Your task to perform on an android device: Clear the shopping cart on amazon.com. Add "bose soundlink mini" to the cart on amazon.com, then select checkout. Image 0: 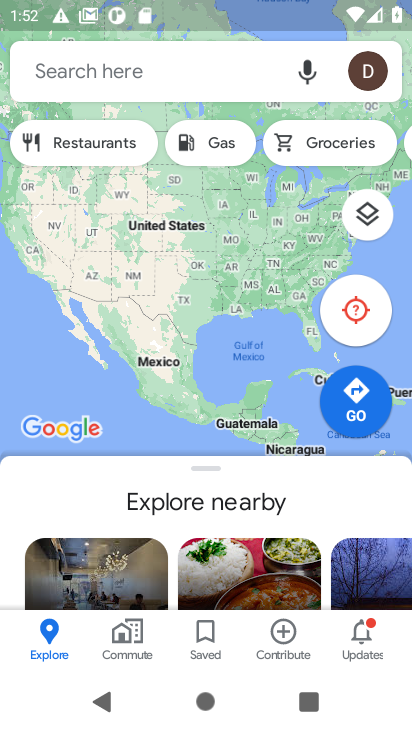
Step 0: press home button
Your task to perform on an android device: Clear the shopping cart on amazon.com. Add "bose soundlink mini" to the cart on amazon.com, then select checkout. Image 1: 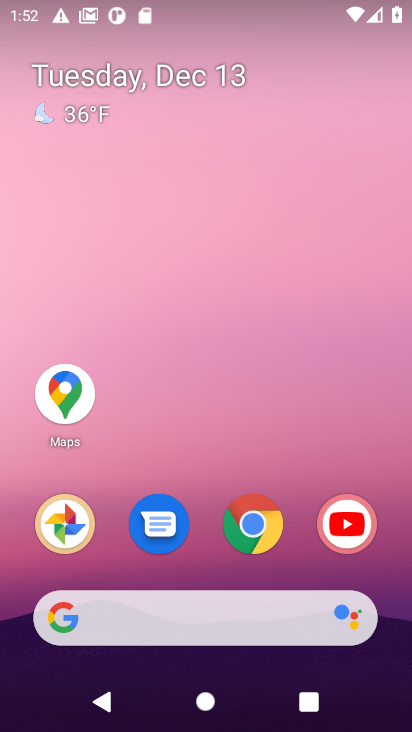
Step 1: click (251, 530)
Your task to perform on an android device: Clear the shopping cart on amazon.com. Add "bose soundlink mini" to the cart on amazon.com, then select checkout. Image 2: 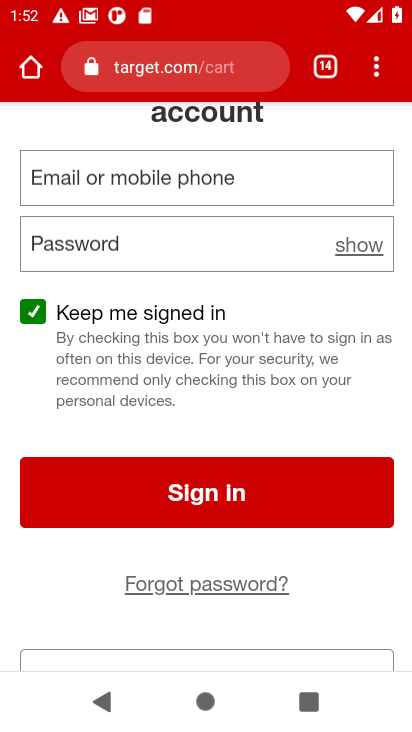
Step 2: click (194, 71)
Your task to perform on an android device: Clear the shopping cart on amazon.com. Add "bose soundlink mini" to the cart on amazon.com, then select checkout. Image 3: 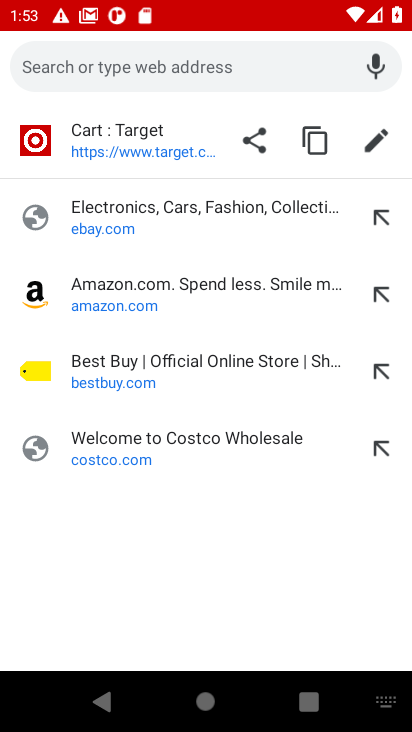
Step 3: click (91, 286)
Your task to perform on an android device: Clear the shopping cart on amazon.com. Add "bose soundlink mini" to the cart on amazon.com, then select checkout. Image 4: 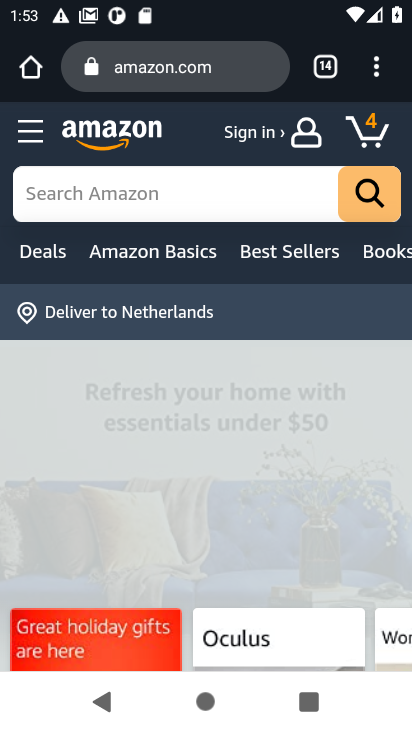
Step 4: click (373, 135)
Your task to perform on an android device: Clear the shopping cart on amazon.com. Add "bose soundlink mini" to the cart on amazon.com, then select checkout. Image 5: 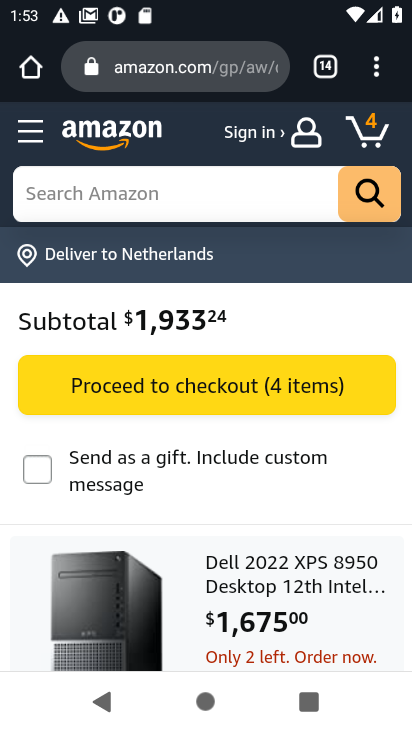
Step 5: drag from (187, 477) to (220, 238)
Your task to perform on an android device: Clear the shopping cart on amazon.com. Add "bose soundlink mini" to the cart on amazon.com, then select checkout. Image 6: 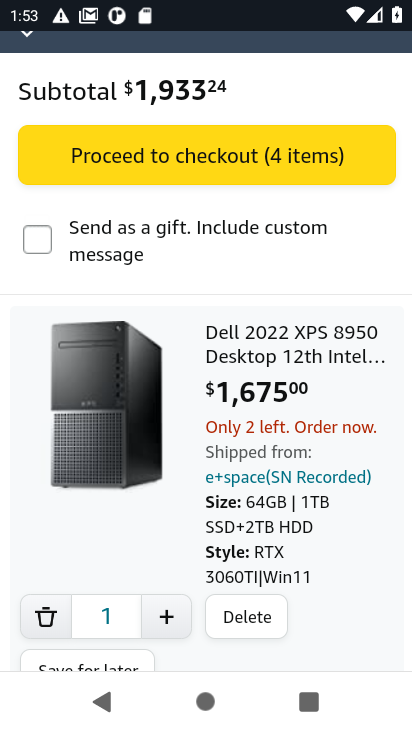
Step 6: click (236, 618)
Your task to perform on an android device: Clear the shopping cart on amazon.com. Add "bose soundlink mini" to the cart on amazon.com, then select checkout. Image 7: 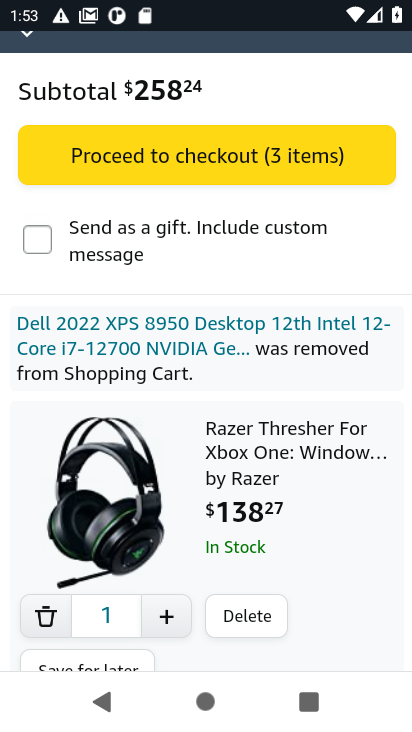
Step 7: click (236, 618)
Your task to perform on an android device: Clear the shopping cart on amazon.com. Add "bose soundlink mini" to the cart on amazon.com, then select checkout. Image 8: 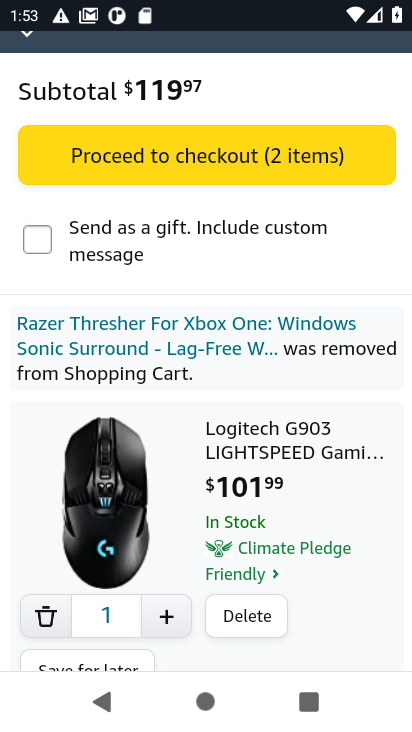
Step 8: click (236, 617)
Your task to perform on an android device: Clear the shopping cart on amazon.com. Add "bose soundlink mini" to the cart on amazon.com, then select checkout. Image 9: 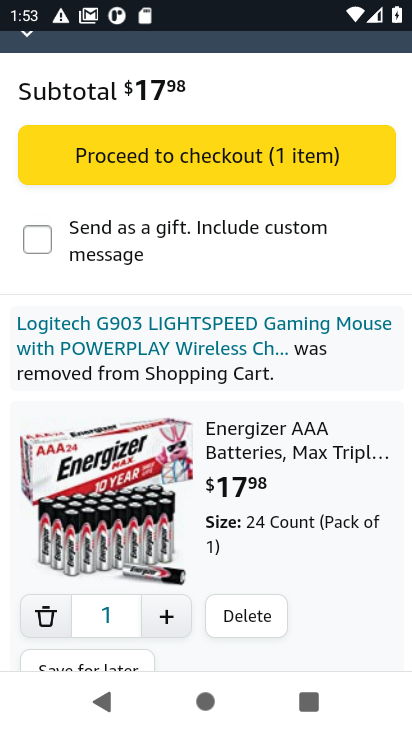
Step 9: click (236, 617)
Your task to perform on an android device: Clear the shopping cart on amazon.com. Add "bose soundlink mini" to the cart on amazon.com, then select checkout. Image 10: 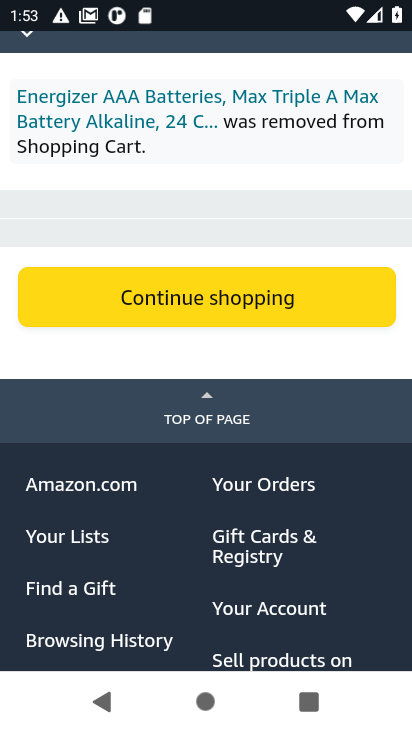
Step 10: drag from (292, 300) to (302, 561)
Your task to perform on an android device: Clear the shopping cart on amazon.com. Add "bose soundlink mini" to the cart on amazon.com, then select checkout. Image 11: 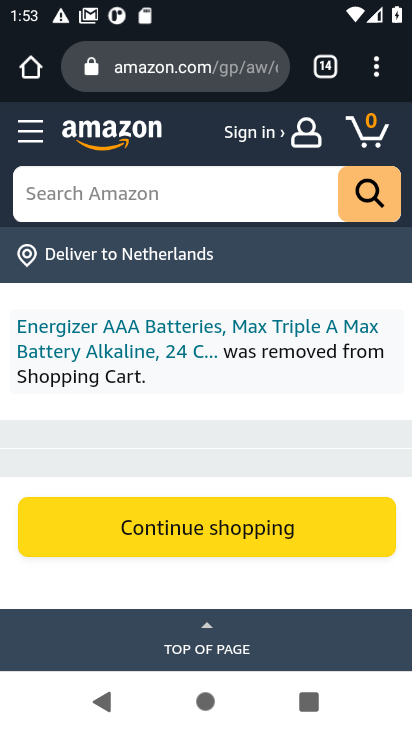
Step 11: click (112, 189)
Your task to perform on an android device: Clear the shopping cart on amazon.com. Add "bose soundlink mini" to the cart on amazon.com, then select checkout. Image 12: 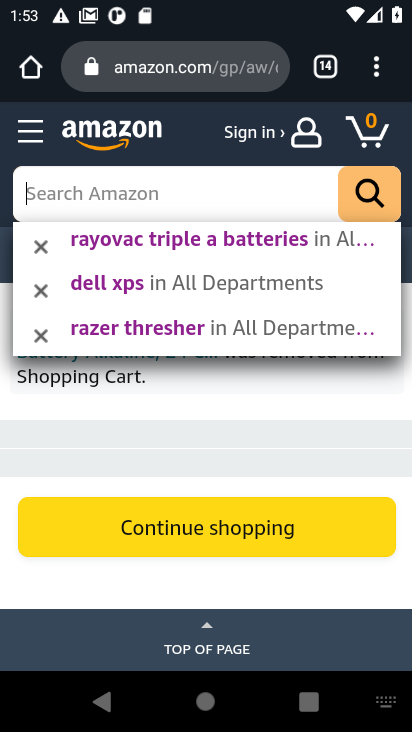
Step 12: type "bose soundlink mini"
Your task to perform on an android device: Clear the shopping cart on amazon.com. Add "bose soundlink mini" to the cart on amazon.com, then select checkout. Image 13: 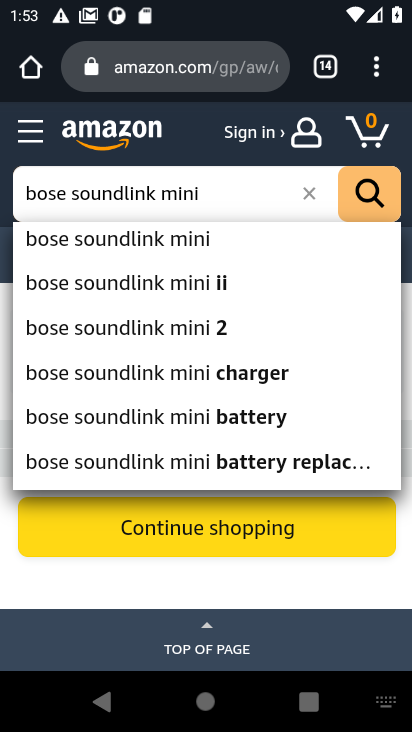
Step 13: click (168, 248)
Your task to perform on an android device: Clear the shopping cart on amazon.com. Add "bose soundlink mini" to the cart on amazon.com, then select checkout. Image 14: 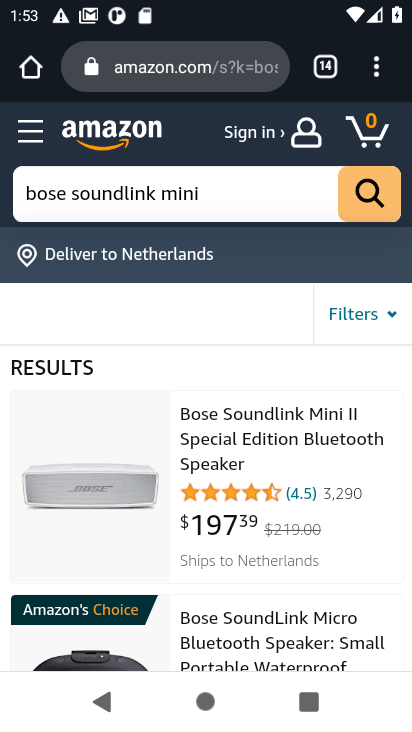
Step 14: click (220, 444)
Your task to perform on an android device: Clear the shopping cart on amazon.com. Add "bose soundlink mini" to the cart on amazon.com, then select checkout. Image 15: 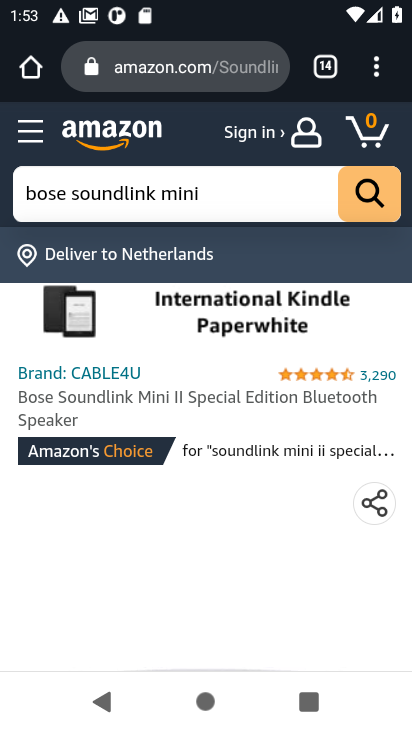
Step 15: drag from (217, 487) to (246, 259)
Your task to perform on an android device: Clear the shopping cart on amazon.com. Add "bose soundlink mini" to the cart on amazon.com, then select checkout. Image 16: 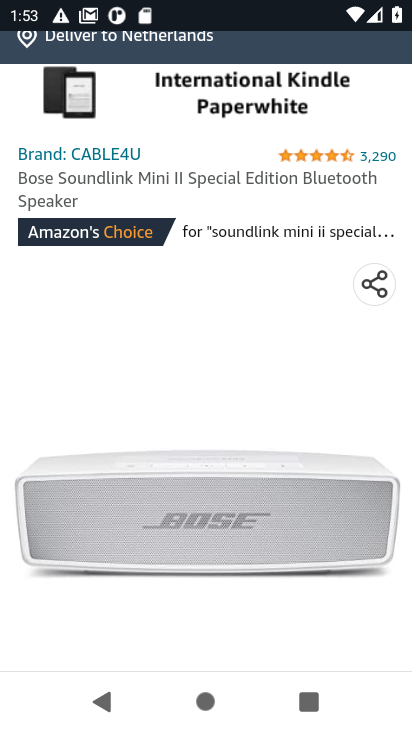
Step 16: drag from (208, 503) to (232, 176)
Your task to perform on an android device: Clear the shopping cart on amazon.com. Add "bose soundlink mini" to the cart on amazon.com, then select checkout. Image 17: 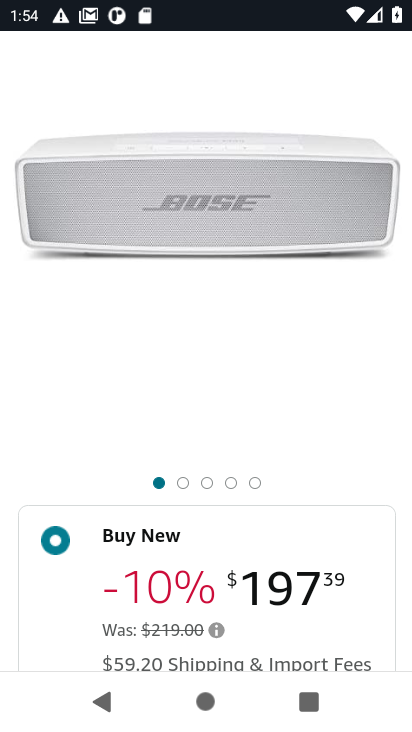
Step 17: drag from (180, 491) to (203, 144)
Your task to perform on an android device: Clear the shopping cart on amazon.com. Add "bose soundlink mini" to the cart on amazon.com, then select checkout. Image 18: 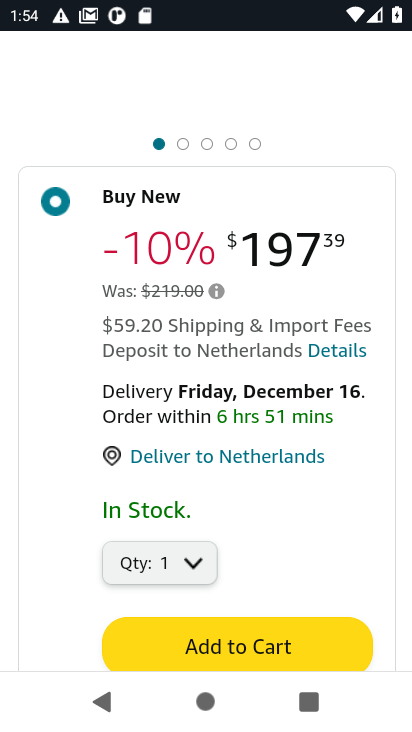
Step 18: click (209, 646)
Your task to perform on an android device: Clear the shopping cart on amazon.com. Add "bose soundlink mini" to the cart on amazon.com, then select checkout. Image 19: 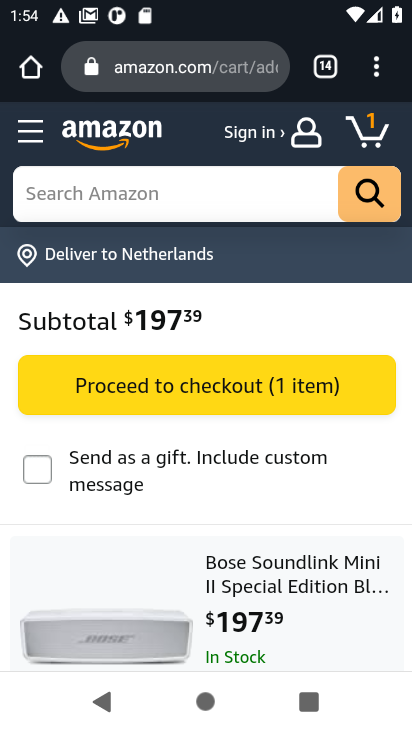
Step 19: click (198, 386)
Your task to perform on an android device: Clear the shopping cart on amazon.com. Add "bose soundlink mini" to the cart on amazon.com, then select checkout. Image 20: 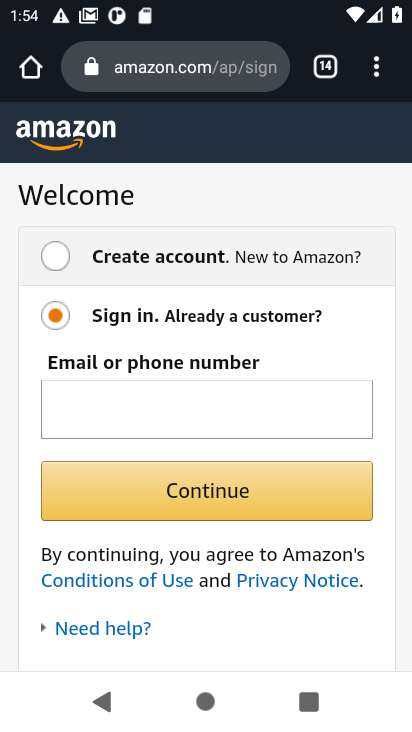
Step 20: task complete